Your task to perform on an android device: toggle priority inbox in the gmail app Image 0: 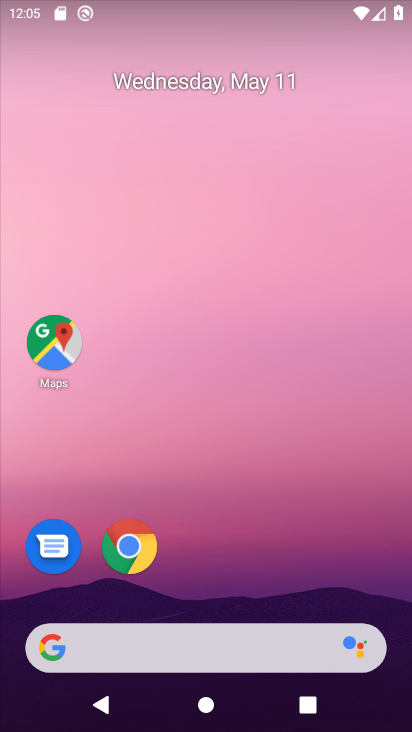
Step 0: drag from (273, 542) to (276, 221)
Your task to perform on an android device: toggle priority inbox in the gmail app Image 1: 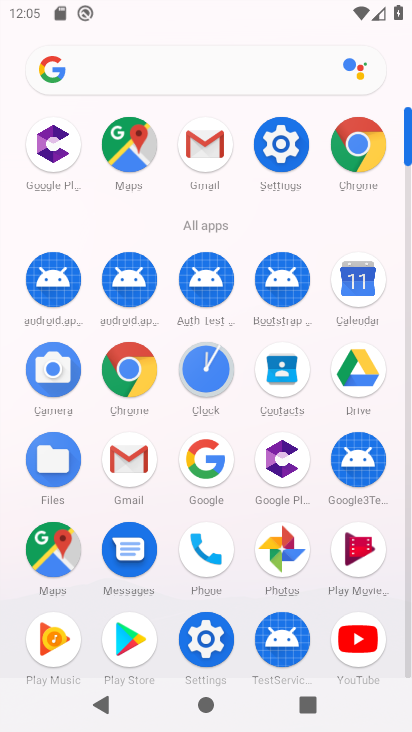
Step 1: click (203, 155)
Your task to perform on an android device: toggle priority inbox in the gmail app Image 2: 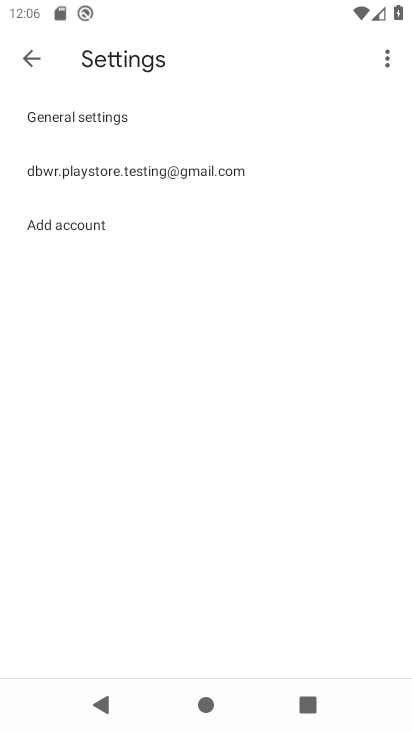
Step 2: click (118, 165)
Your task to perform on an android device: toggle priority inbox in the gmail app Image 3: 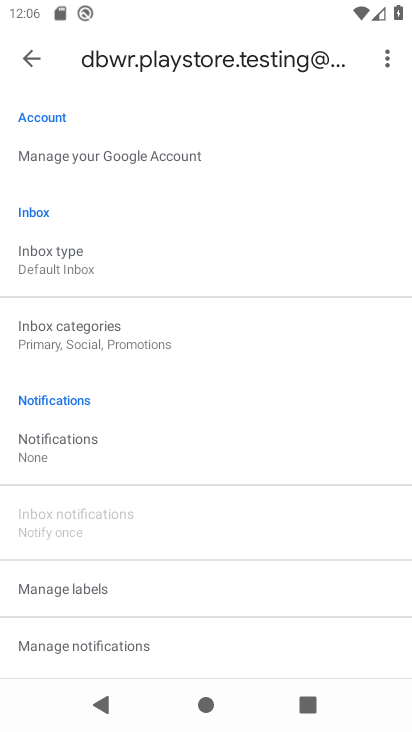
Step 3: click (65, 261)
Your task to perform on an android device: toggle priority inbox in the gmail app Image 4: 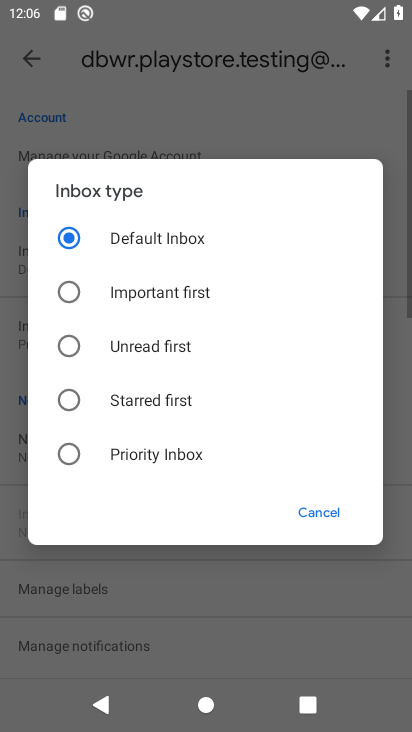
Step 4: click (100, 449)
Your task to perform on an android device: toggle priority inbox in the gmail app Image 5: 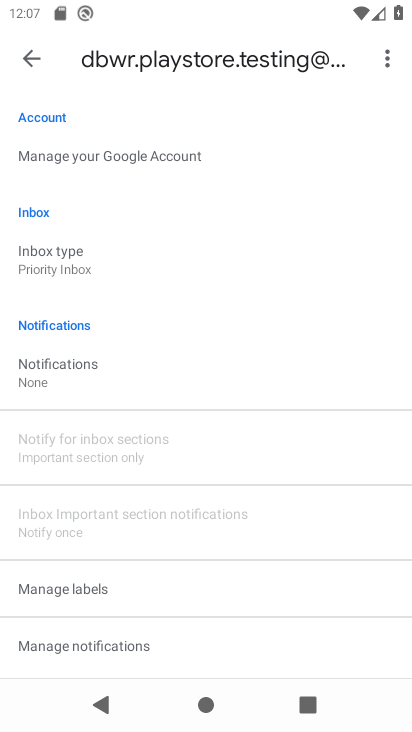
Step 5: task complete